Your task to perform on an android device: Show me popular games on the Play Store Image 0: 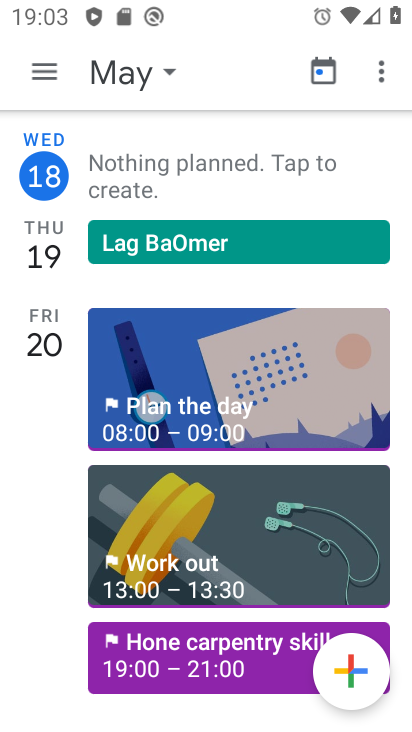
Step 0: press home button
Your task to perform on an android device: Show me popular games on the Play Store Image 1: 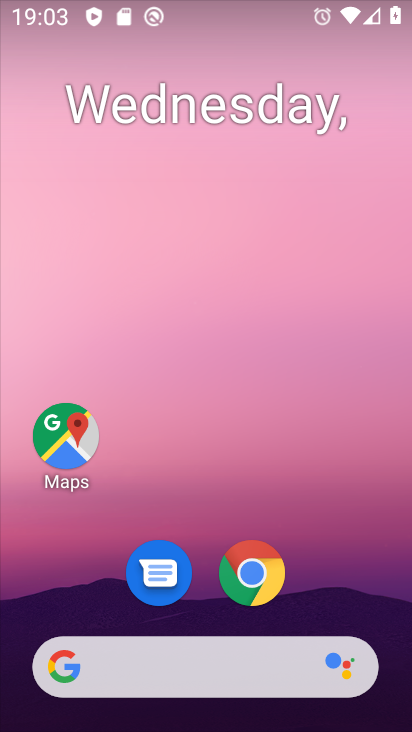
Step 1: drag from (379, 578) to (396, 222)
Your task to perform on an android device: Show me popular games on the Play Store Image 2: 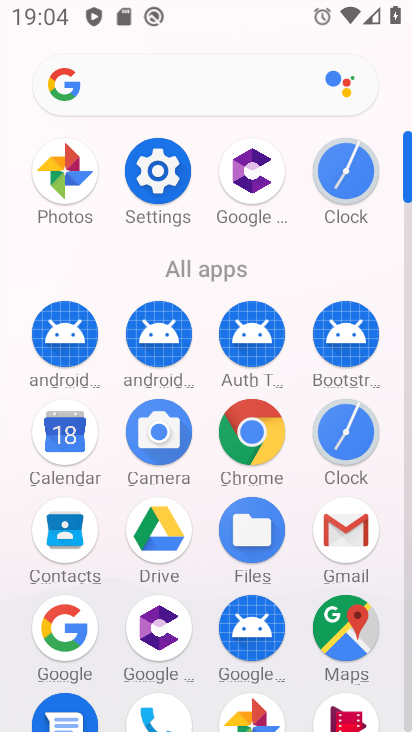
Step 2: drag from (227, 282) to (235, 84)
Your task to perform on an android device: Show me popular games on the Play Store Image 3: 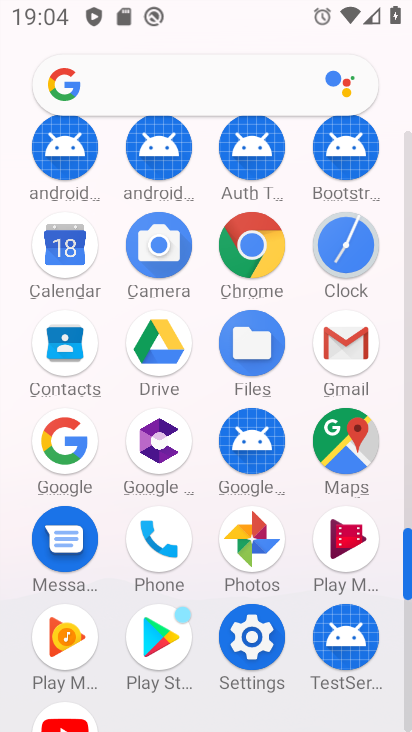
Step 3: click (175, 639)
Your task to perform on an android device: Show me popular games on the Play Store Image 4: 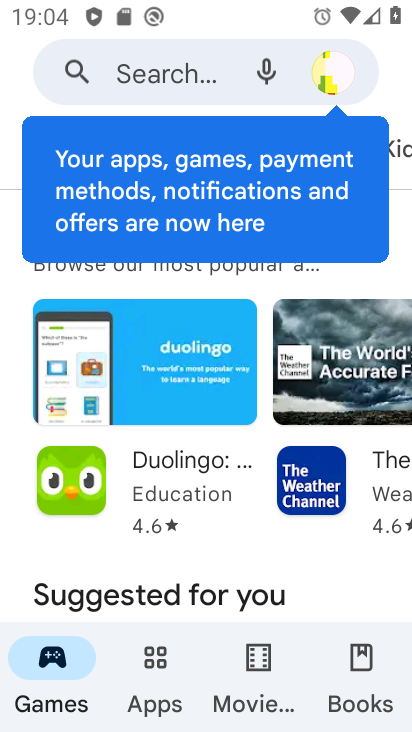
Step 4: click (193, 628)
Your task to perform on an android device: Show me popular games on the Play Store Image 5: 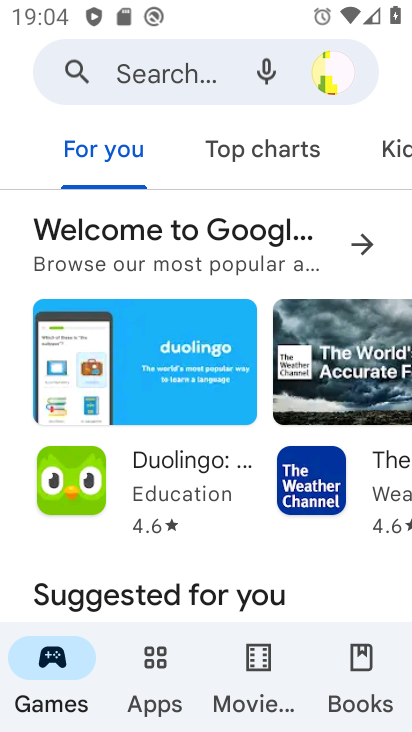
Step 5: click (270, 167)
Your task to perform on an android device: Show me popular games on the Play Store Image 6: 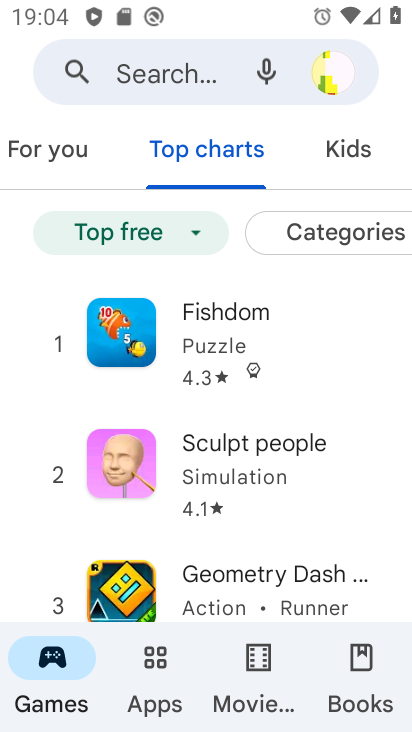
Step 6: task complete